Your task to perform on an android device: Open settings Image 0: 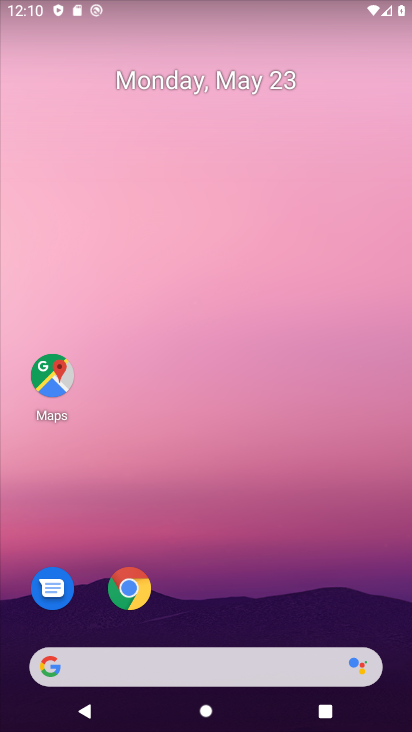
Step 0: drag from (215, 722) to (166, 30)
Your task to perform on an android device: Open settings Image 1: 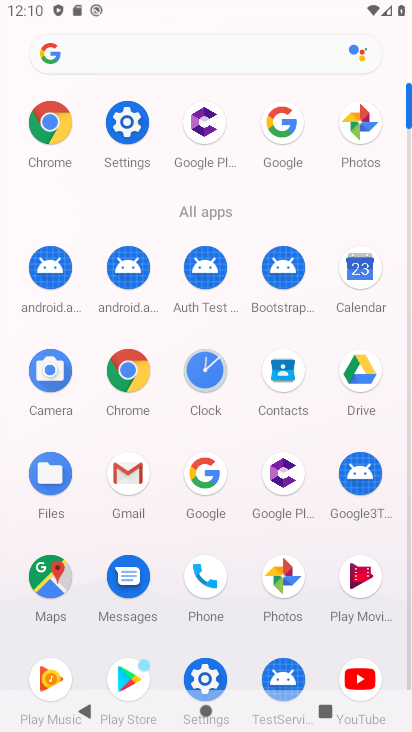
Step 1: click (135, 120)
Your task to perform on an android device: Open settings Image 2: 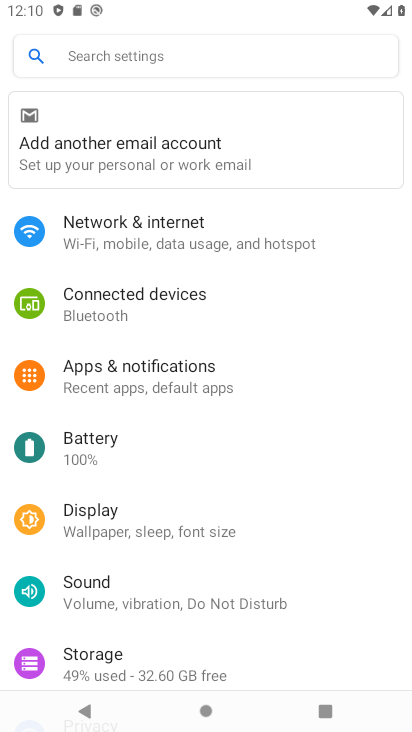
Step 2: task complete